Your task to perform on an android device: What's on my calendar tomorrow? Image 0: 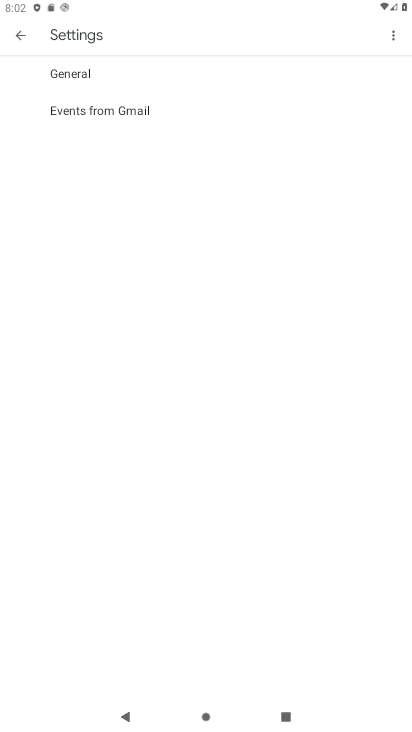
Step 0: press home button
Your task to perform on an android device: What's on my calendar tomorrow? Image 1: 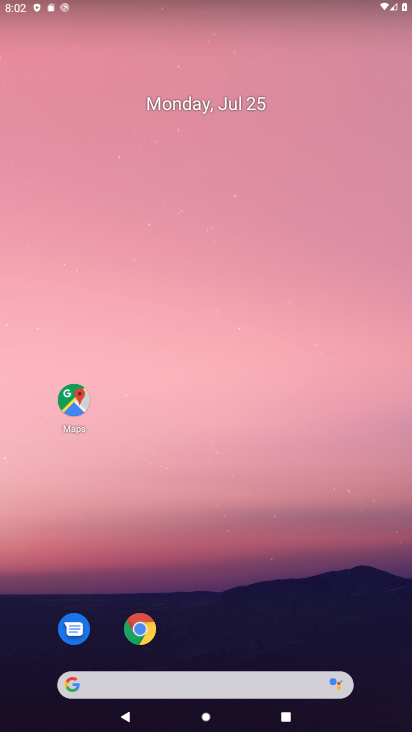
Step 1: drag from (263, 536) to (224, 1)
Your task to perform on an android device: What's on my calendar tomorrow? Image 2: 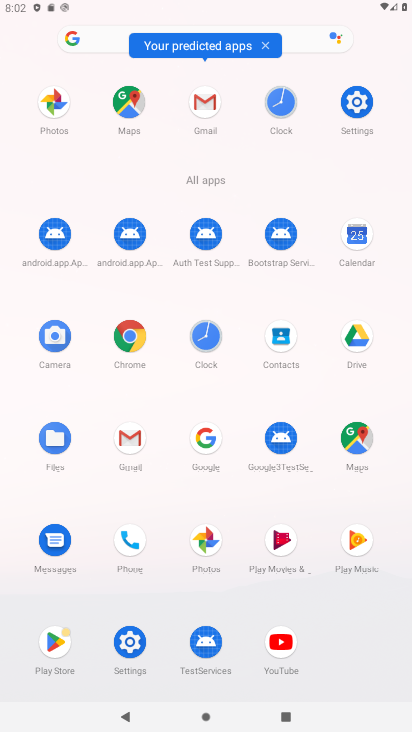
Step 2: click (351, 234)
Your task to perform on an android device: What's on my calendar tomorrow? Image 3: 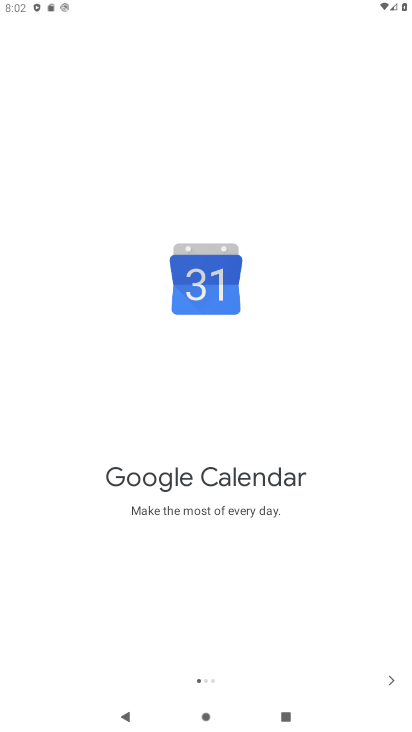
Step 3: click (392, 675)
Your task to perform on an android device: What's on my calendar tomorrow? Image 4: 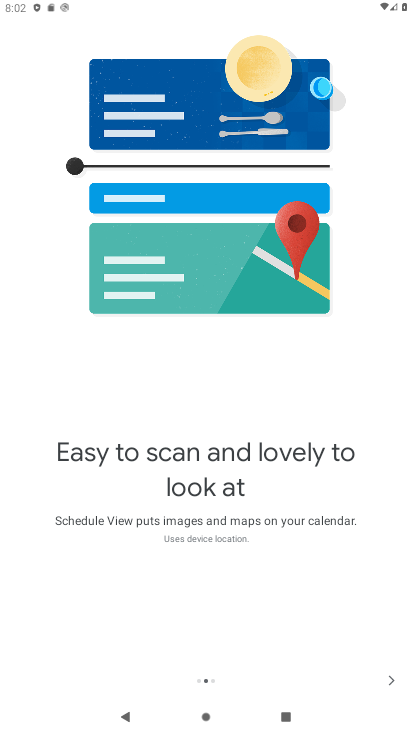
Step 4: click (392, 675)
Your task to perform on an android device: What's on my calendar tomorrow? Image 5: 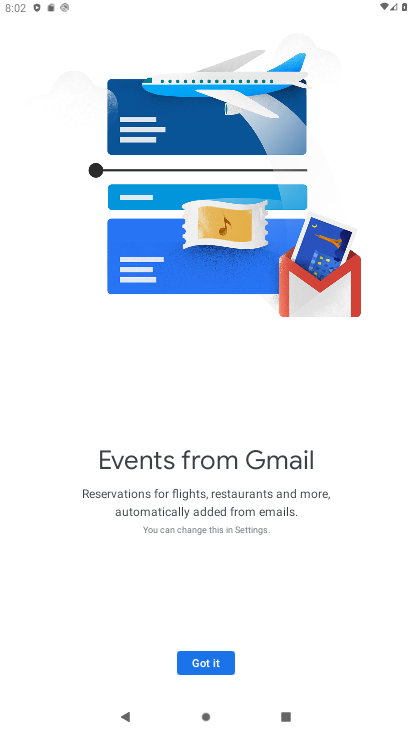
Step 5: click (210, 664)
Your task to perform on an android device: What's on my calendar tomorrow? Image 6: 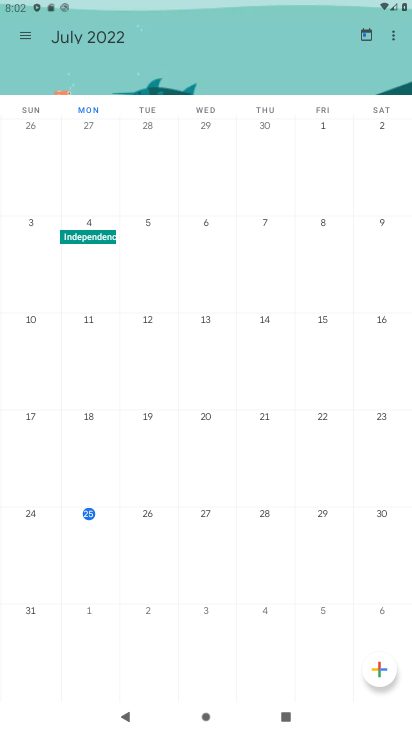
Step 6: click (204, 506)
Your task to perform on an android device: What's on my calendar tomorrow? Image 7: 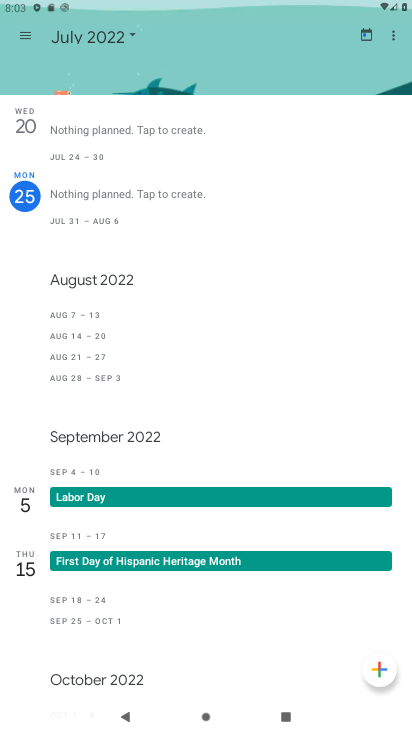
Step 7: task complete